Your task to perform on an android device: add a contact in the contacts app Image 0: 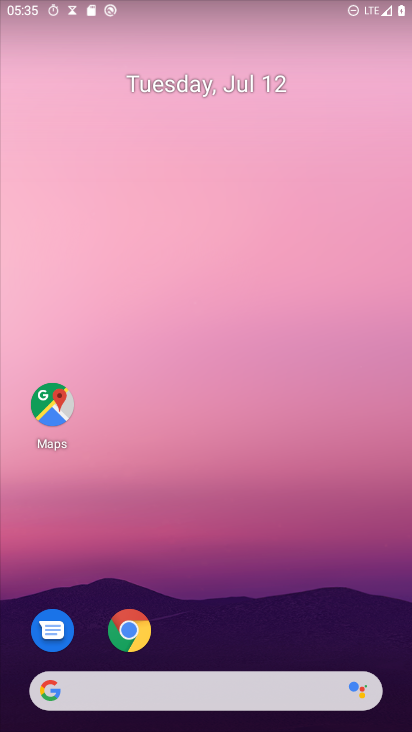
Step 0: drag from (290, 691) to (363, 66)
Your task to perform on an android device: add a contact in the contacts app Image 1: 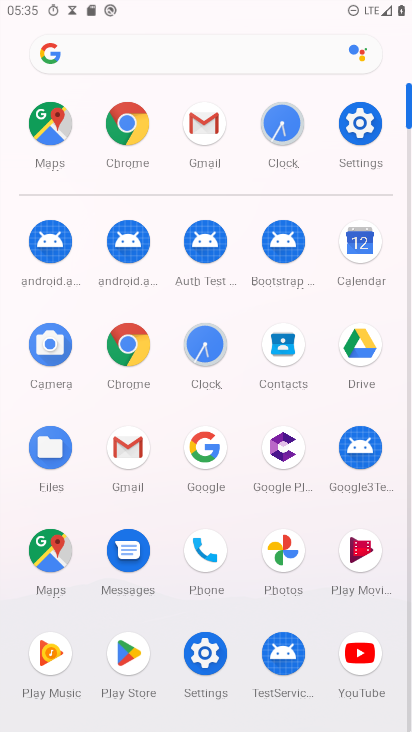
Step 1: click (279, 339)
Your task to perform on an android device: add a contact in the contacts app Image 2: 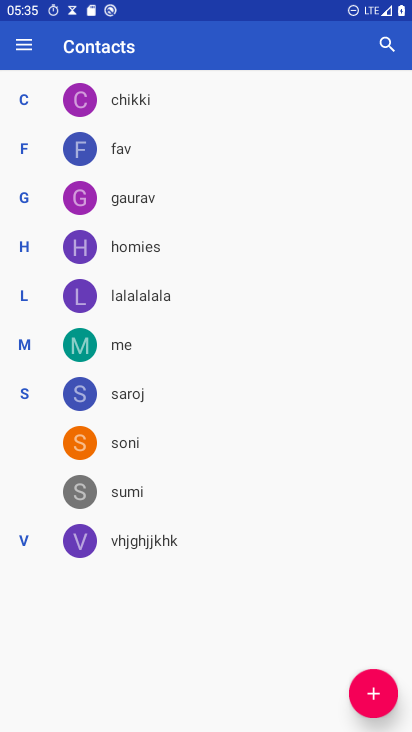
Step 2: click (389, 689)
Your task to perform on an android device: add a contact in the contacts app Image 3: 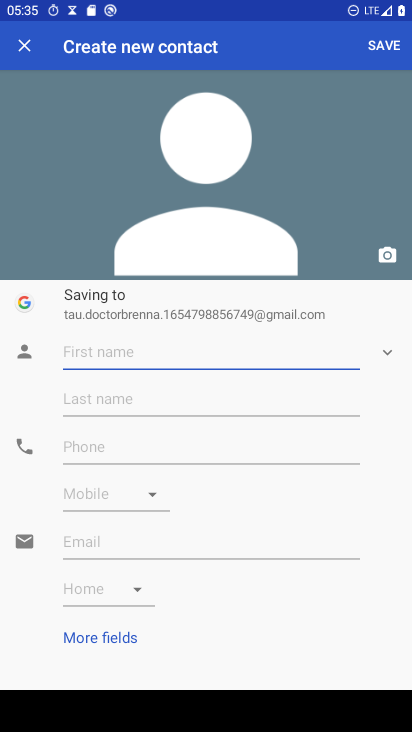
Step 3: type "tushar"
Your task to perform on an android device: add a contact in the contacts app Image 4: 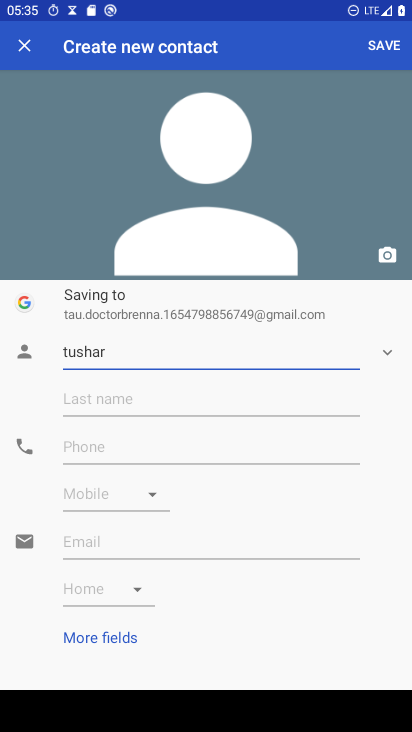
Step 4: click (122, 456)
Your task to perform on an android device: add a contact in the contacts app Image 5: 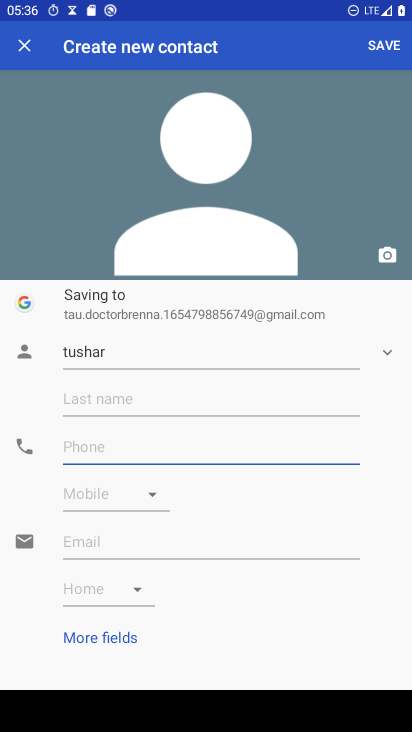
Step 5: type "9897676545"
Your task to perform on an android device: add a contact in the contacts app Image 6: 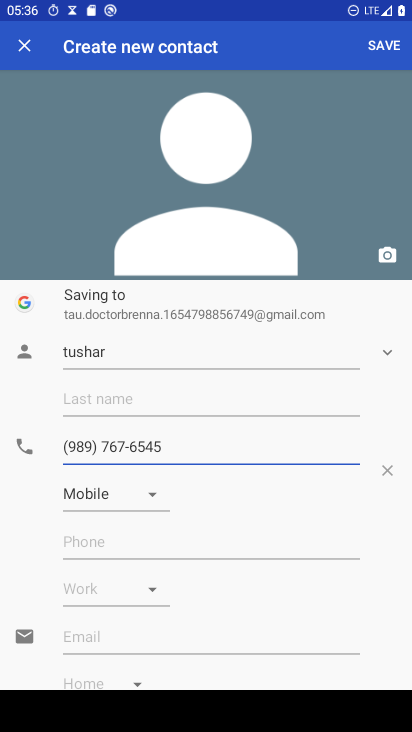
Step 6: click (379, 40)
Your task to perform on an android device: add a contact in the contacts app Image 7: 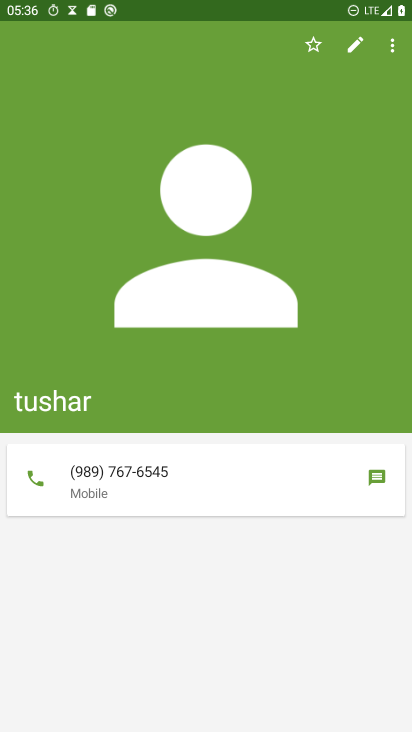
Step 7: task complete